Your task to perform on an android device: change your default location settings in chrome Image 0: 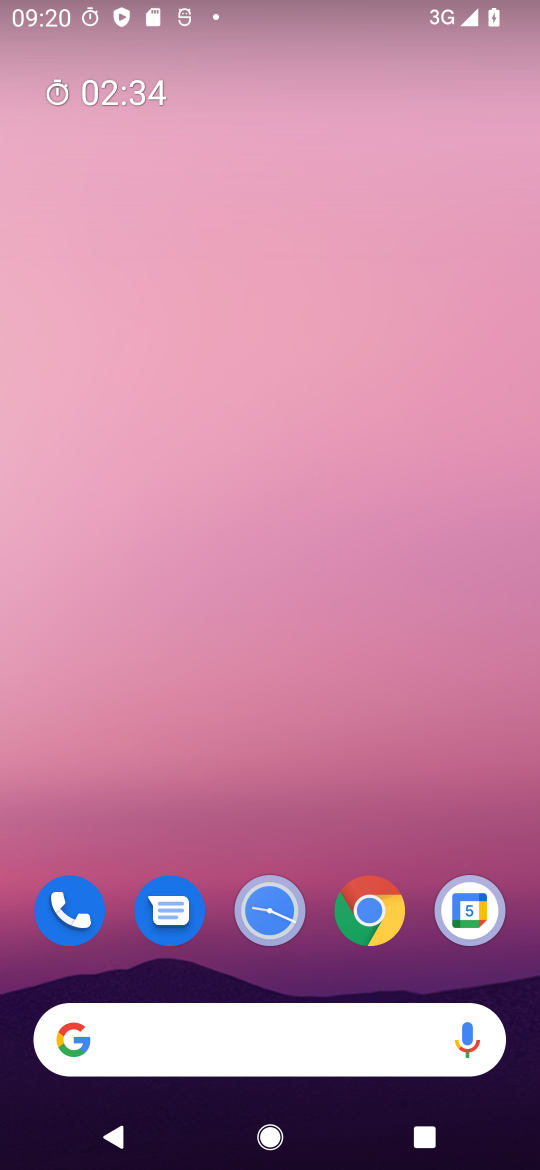
Step 0: drag from (312, 1050) to (311, 8)
Your task to perform on an android device: change your default location settings in chrome Image 1: 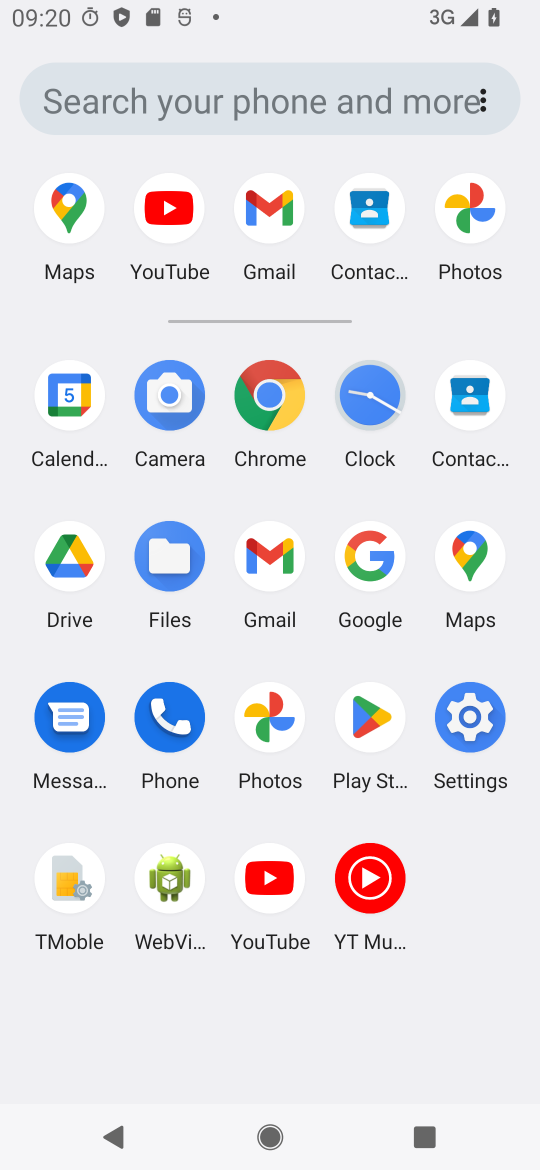
Step 1: click (290, 366)
Your task to perform on an android device: change your default location settings in chrome Image 2: 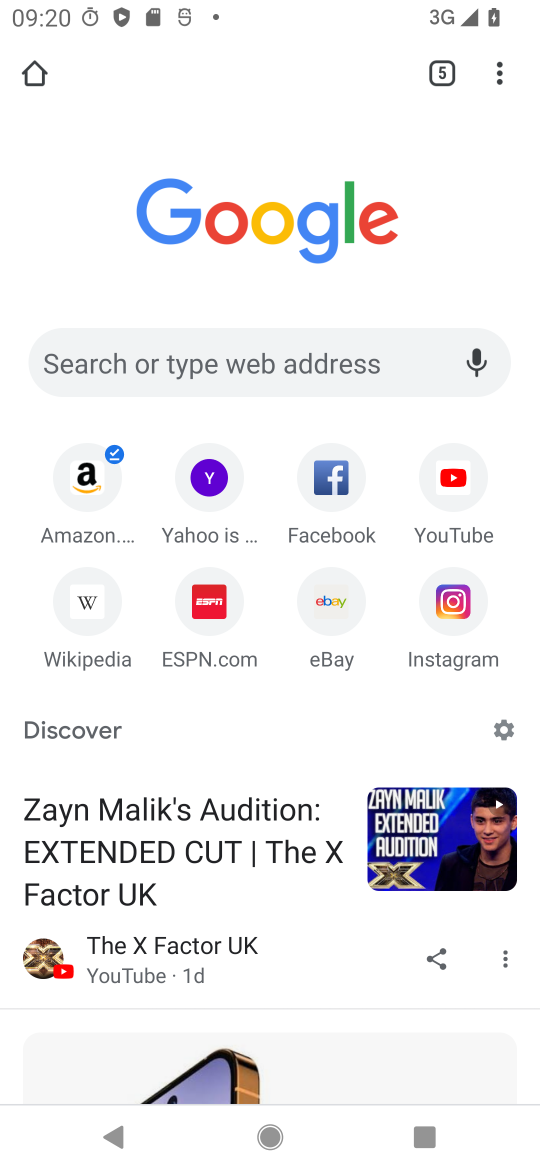
Step 2: click (501, 60)
Your task to perform on an android device: change your default location settings in chrome Image 3: 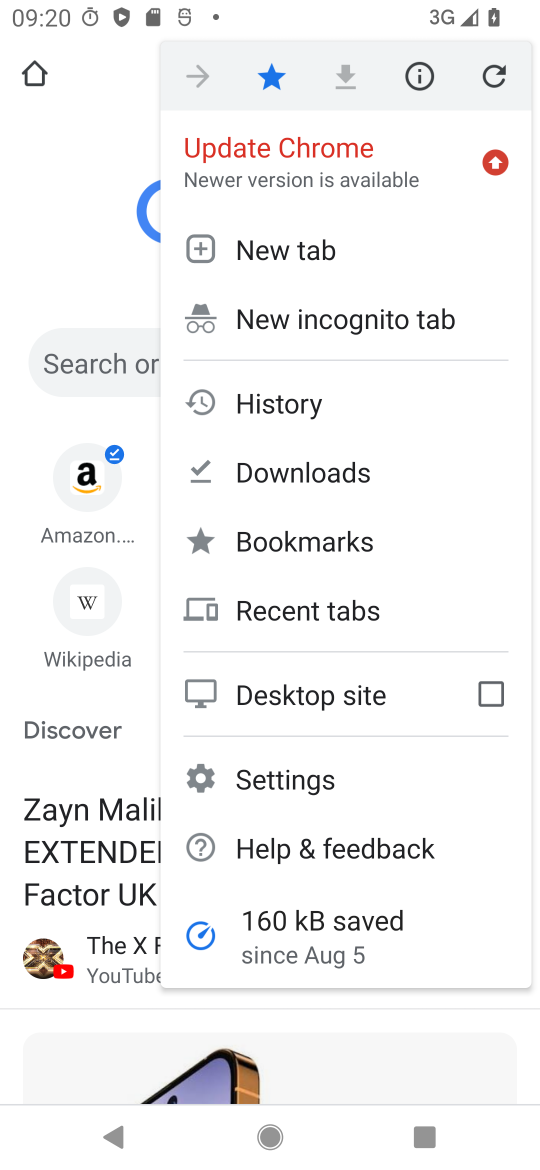
Step 3: click (323, 790)
Your task to perform on an android device: change your default location settings in chrome Image 4: 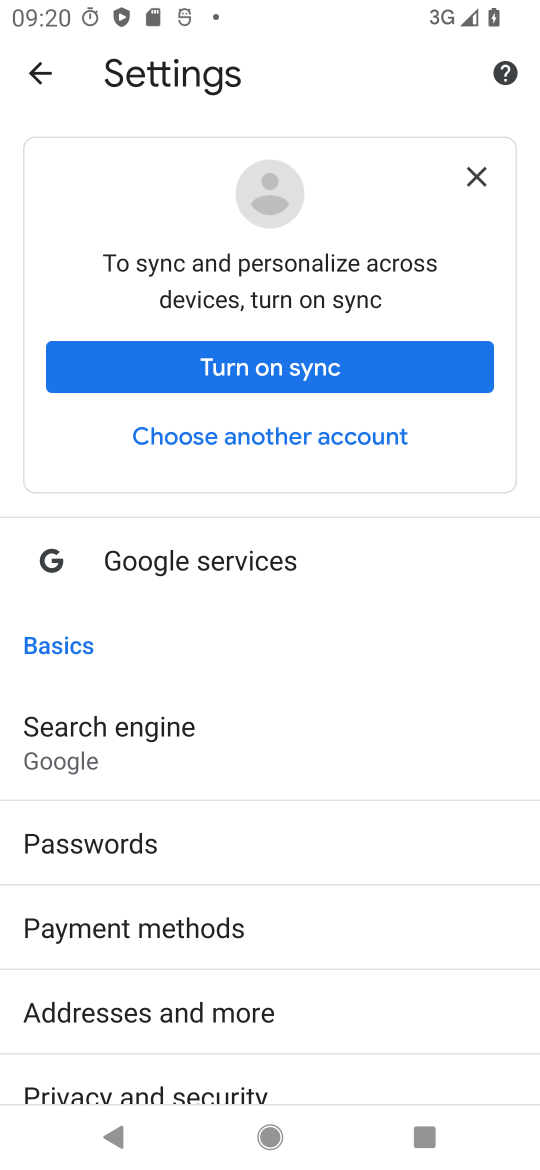
Step 4: drag from (350, 1103) to (342, 191)
Your task to perform on an android device: change your default location settings in chrome Image 5: 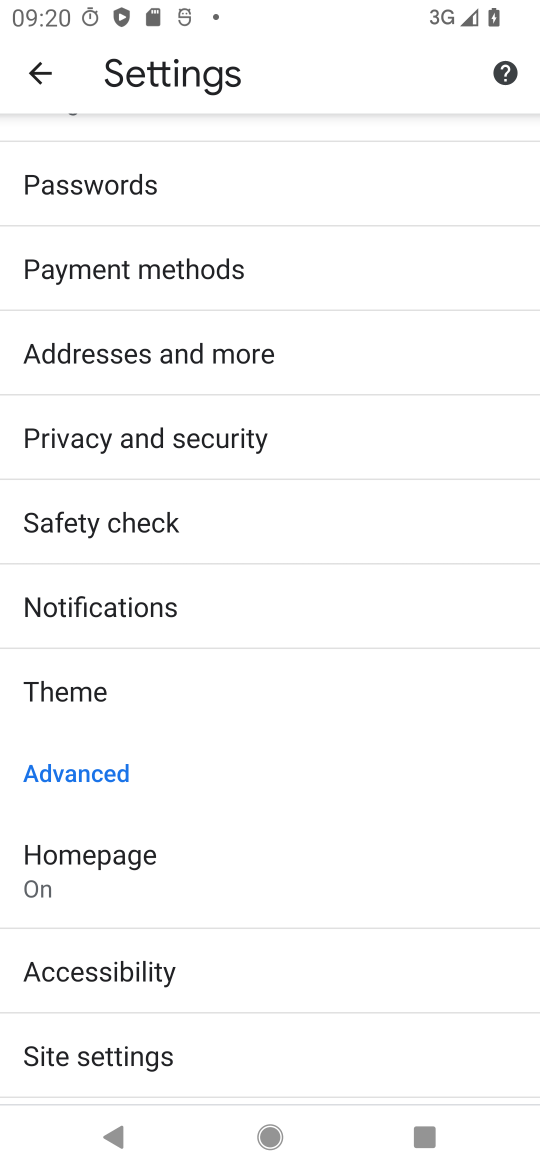
Step 5: drag from (283, 1005) to (306, 565)
Your task to perform on an android device: change your default location settings in chrome Image 6: 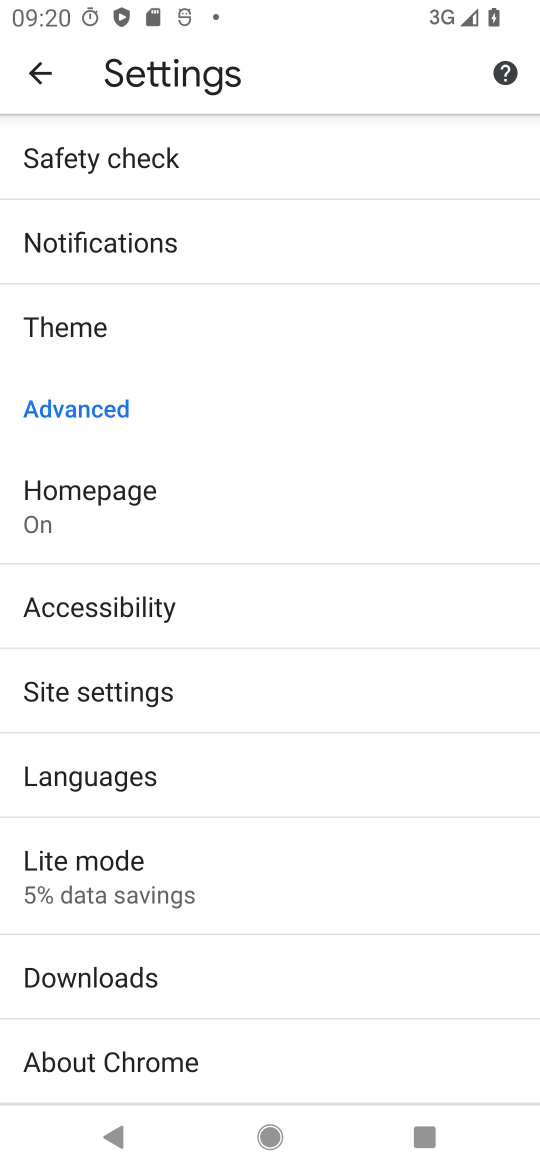
Step 6: click (161, 681)
Your task to perform on an android device: change your default location settings in chrome Image 7: 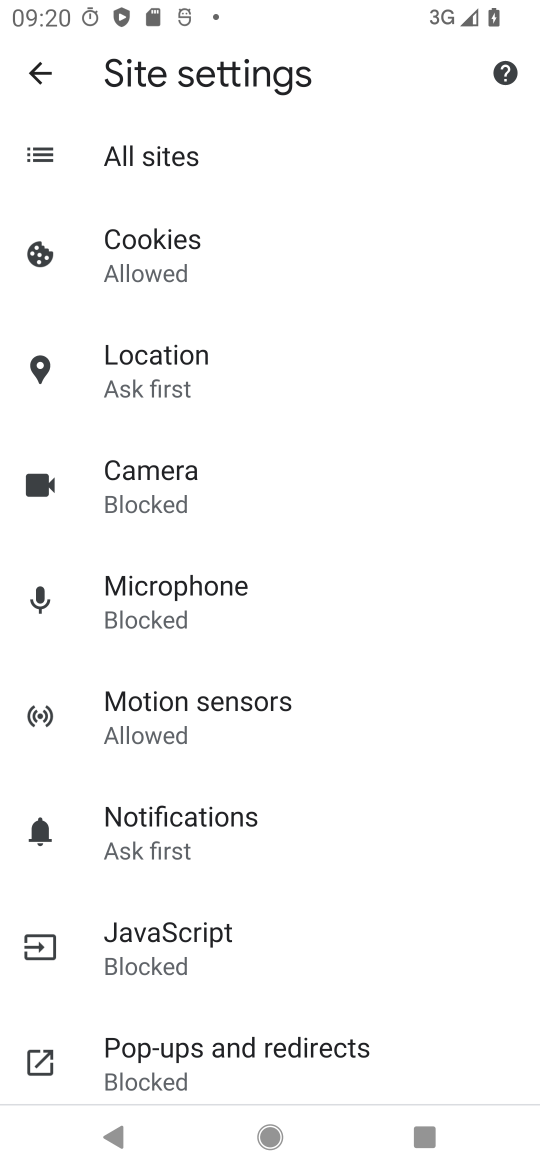
Step 7: click (189, 361)
Your task to perform on an android device: change your default location settings in chrome Image 8: 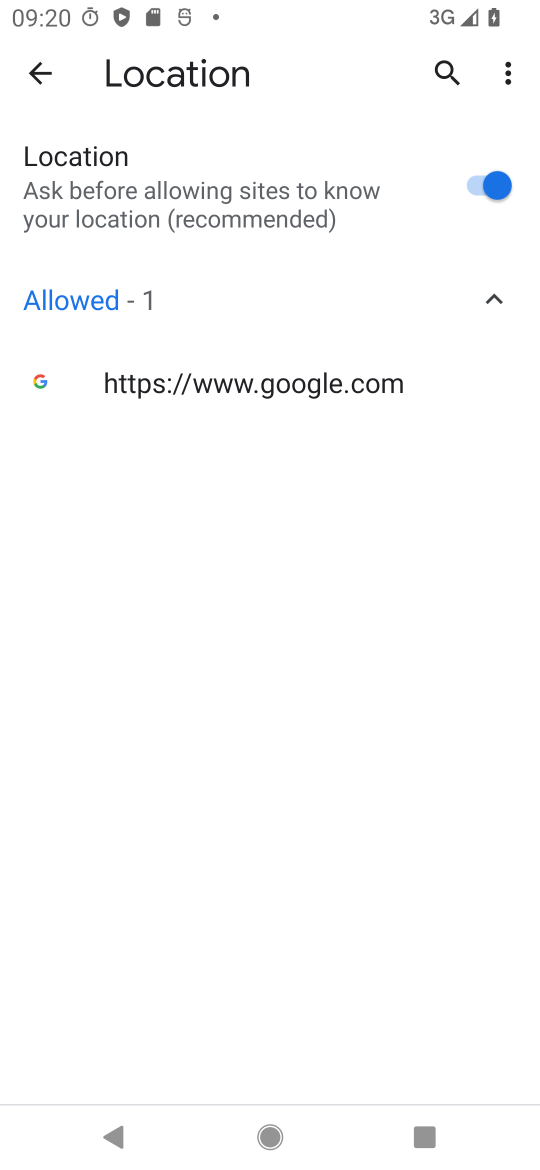
Step 8: task complete